Your task to perform on an android device: Open Google Chrome and open the bookmarks view Image 0: 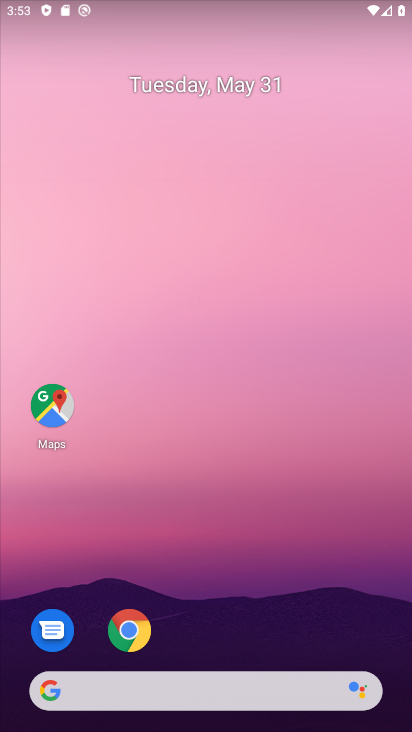
Step 0: drag from (248, 575) to (171, 12)
Your task to perform on an android device: Open Google Chrome and open the bookmarks view Image 1: 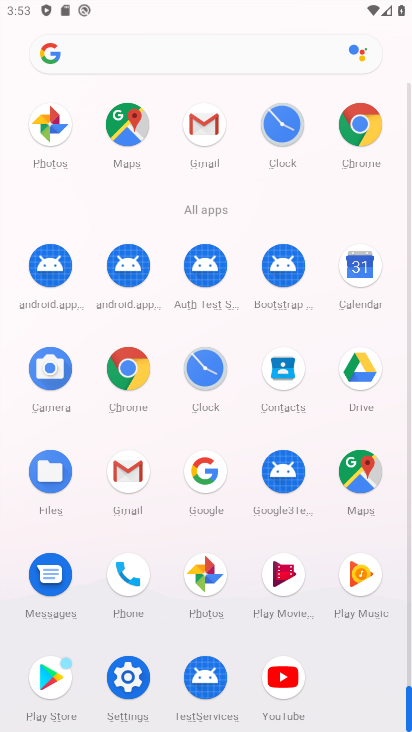
Step 1: drag from (0, 587) to (26, 205)
Your task to perform on an android device: Open Google Chrome and open the bookmarks view Image 2: 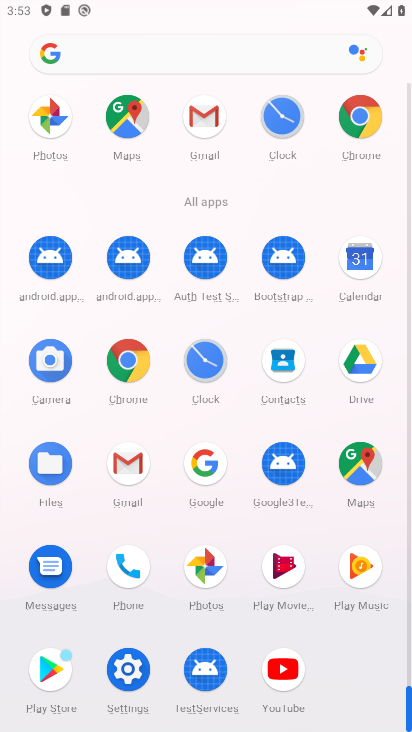
Step 2: click (127, 354)
Your task to perform on an android device: Open Google Chrome and open the bookmarks view Image 3: 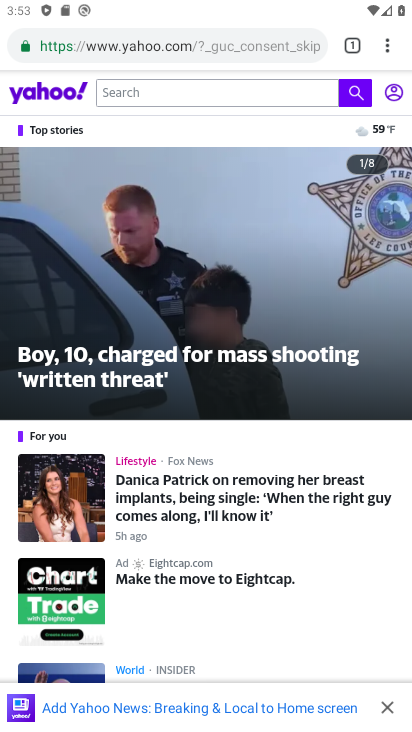
Step 3: task complete